Your task to perform on an android device: turn off translation in the chrome app Image 0: 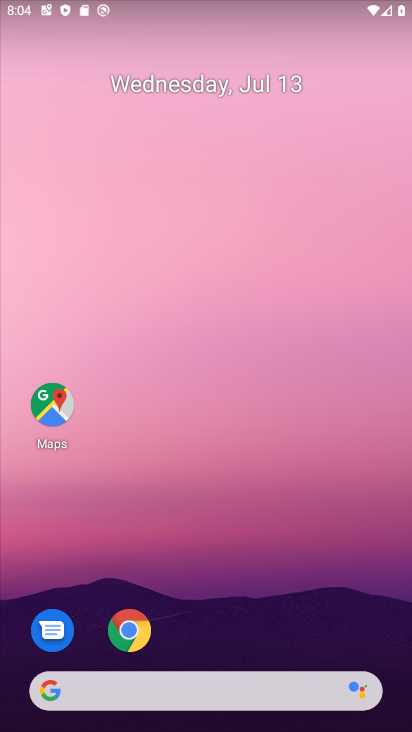
Step 0: drag from (351, 622) to (348, 238)
Your task to perform on an android device: turn off translation in the chrome app Image 1: 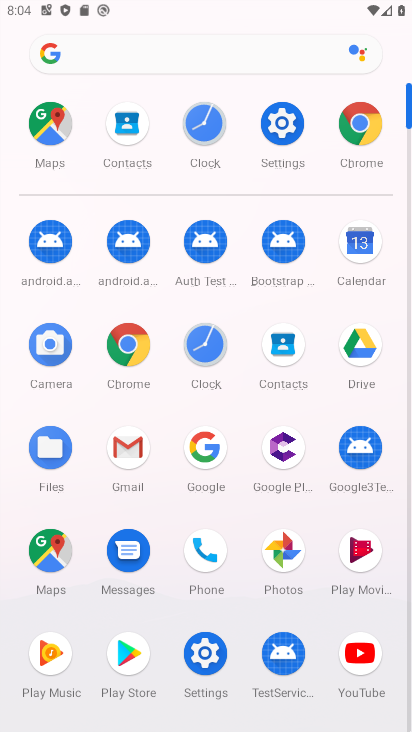
Step 1: click (124, 350)
Your task to perform on an android device: turn off translation in the chrome app Image 2: 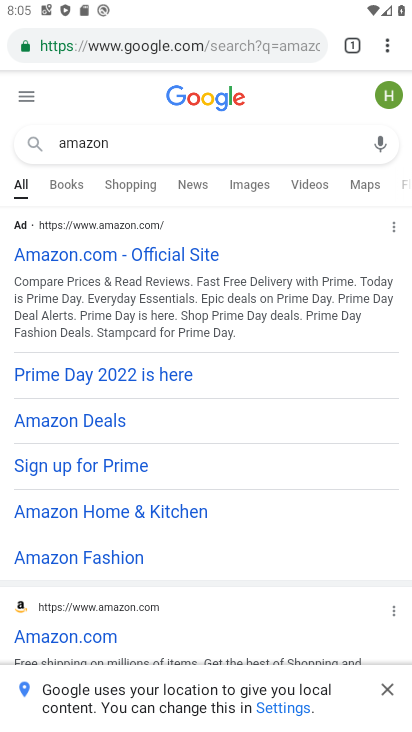
Step 2: click (388, 47)
Your task to perform on an android device: turn off translation in the chrome app Image 3: 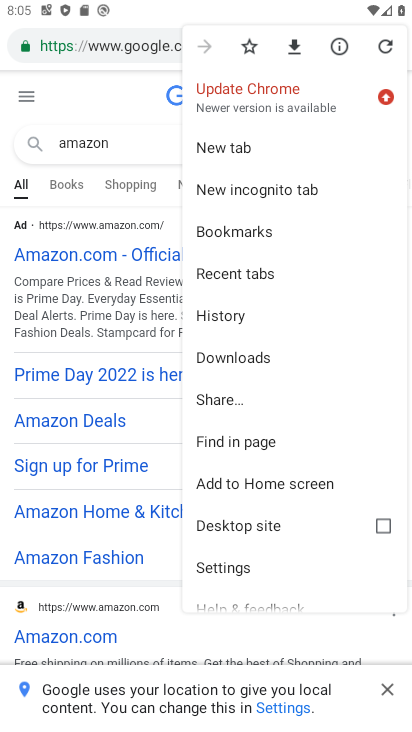
Step 3: drag from (328, 400) to (342, 281)
Your task to perform on an android device: turn off translation in the chrome app Image 4: 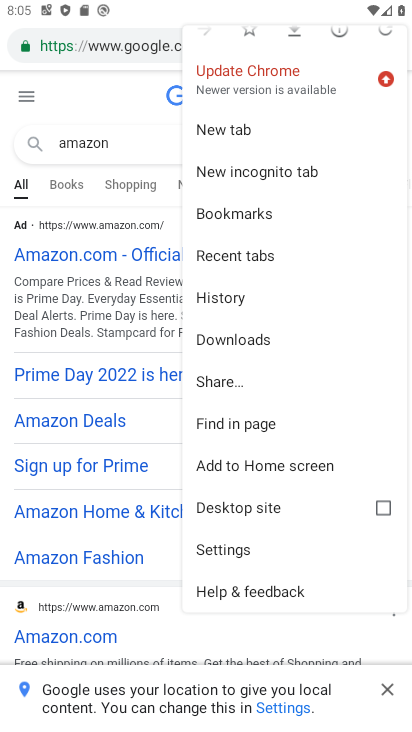
Step 4: click (256, 555)
Your task to perform on an android device: turn off translation in the chrome app Image 5: 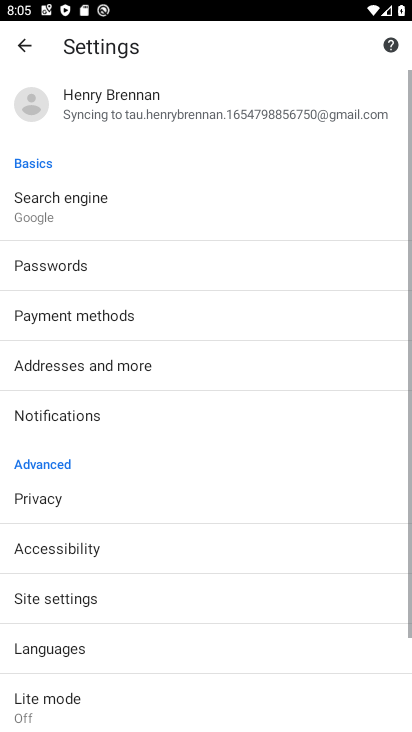
Step 5: drag from (280, 561) to (295, 448)
Your task to perform on an android device: turn off translation in the chrome app Image 6: 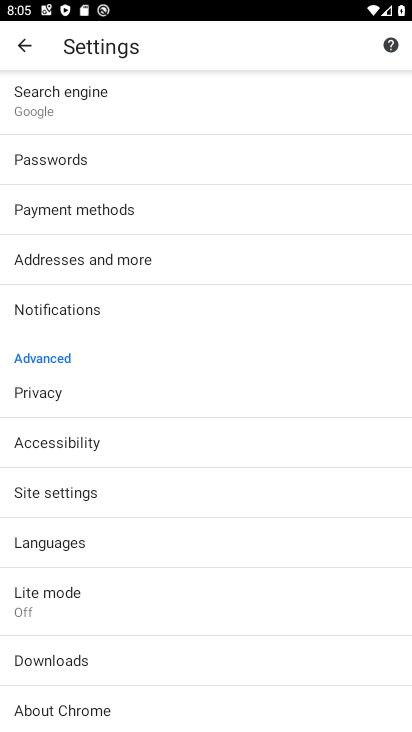
Step 6: drag from (298, 598) to (301, 471)
Your task to perform on an android device: turn off translation in the chrome app Image 7: 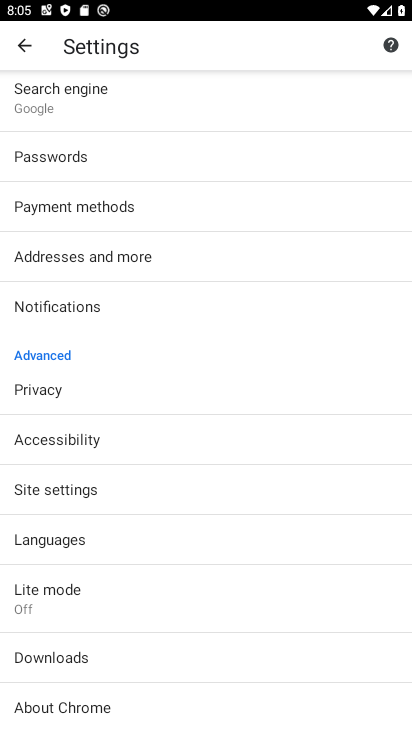
Step 7: click (230, 540)
Your task to perform on an android device: turn off translation in the chrome app Image 8: 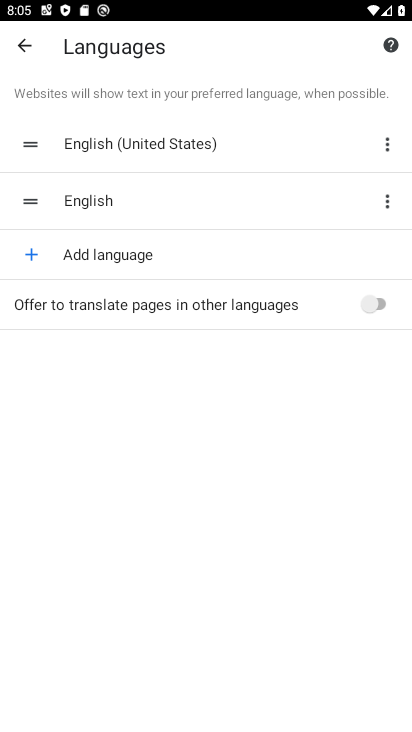
Step 8: task complete